Your task to perform on an android device: turn on improve location accuracy Image 0: 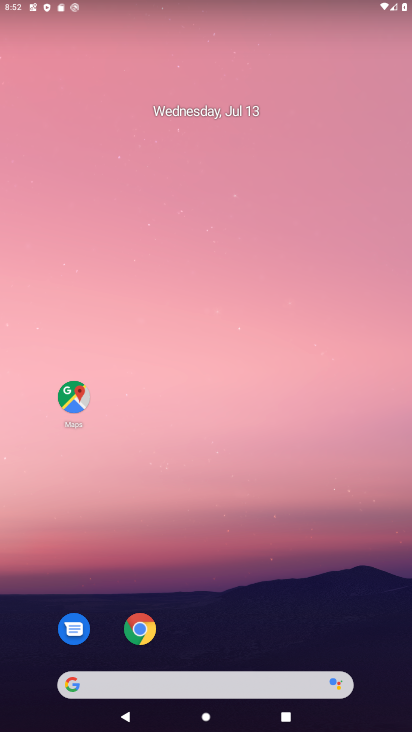
Step 0: drag from (202, 620) to (211, 16)
Your task to perform on an android device: turn on improve location accuracy Image 1: 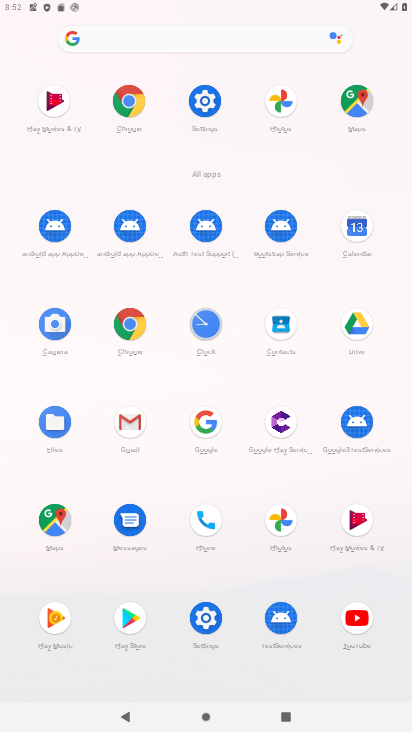
Step 1: click (199, 602)
Your task to perform on an android device: turn on improve location accuracy Image 2: 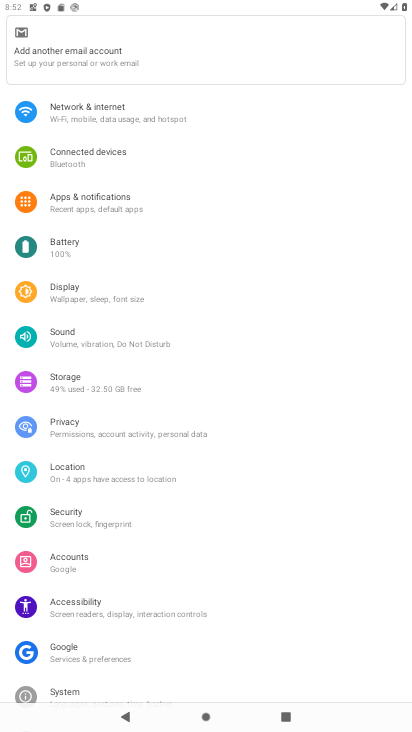
Step 2: click (72, 456)
Your task to perform on an android device: turn on improve location accuracy Image 3: 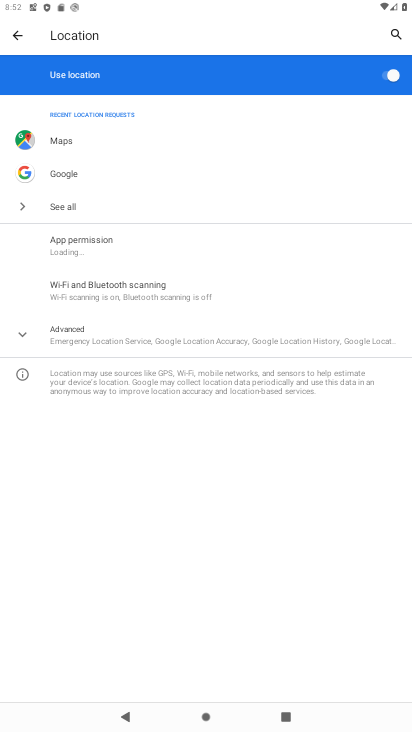
Step 3: click (46, 340)
Your task to perform on an android device: turn on improve location accuracy Image 4: 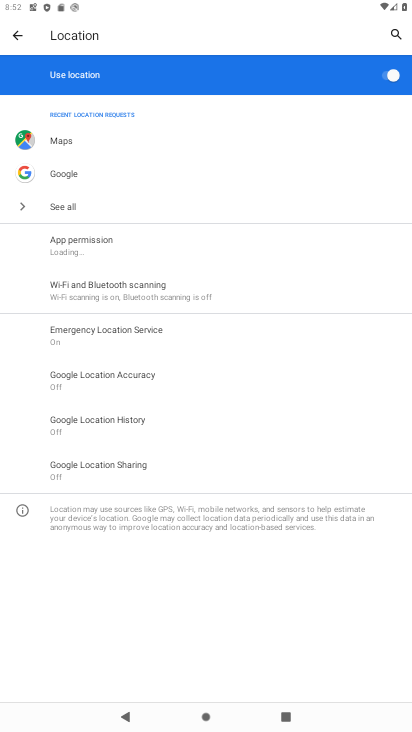
Step 4: click (97, 375)
Your task to perform on an android device: turn on improve location accuracy Image 5: 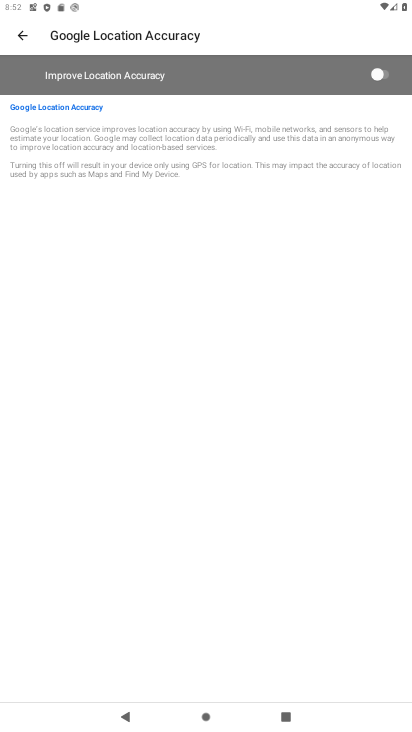
Step 5: click (349, 71)
Your task to perform on an android device: turn on improve location accuracy Image 6: 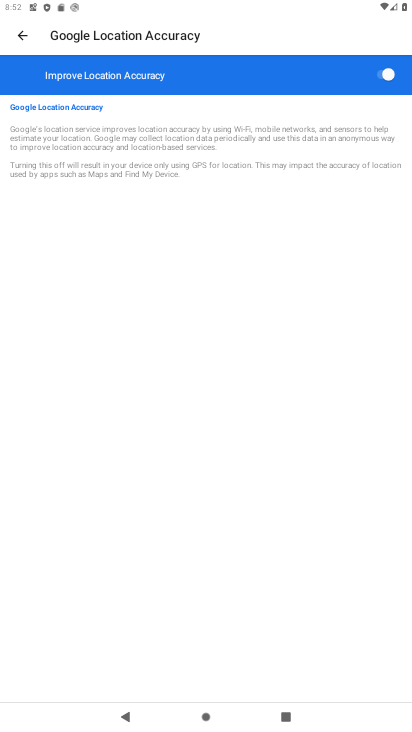
Step 6: task complete